Your task to perform on an android device: Open the calendar and show me this week's events? Image 0: 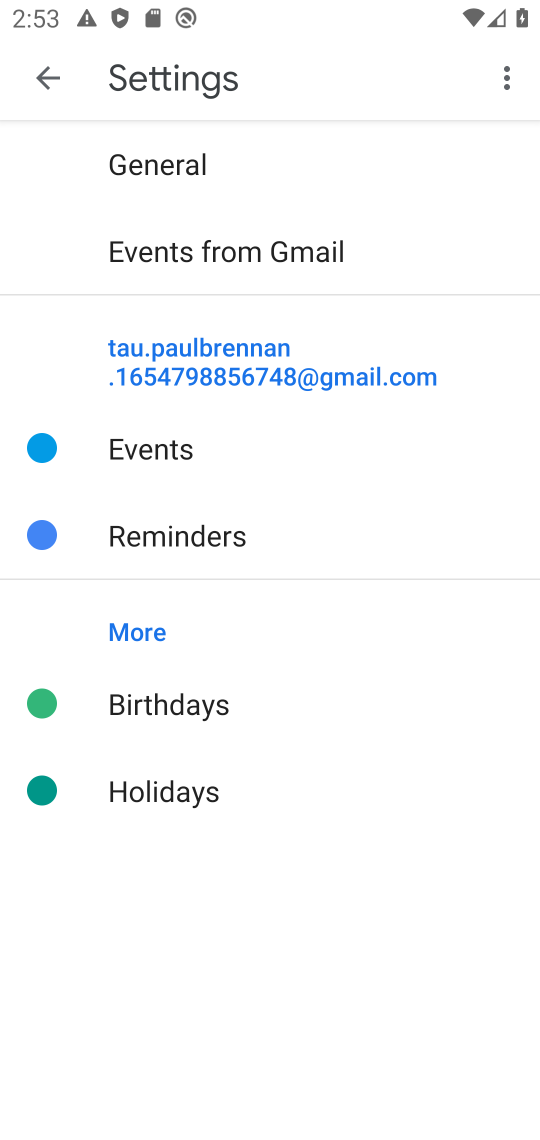
Step 0: press home button
Your task to perform on an android device: Open the calendar and show me this week's events? Image 1: 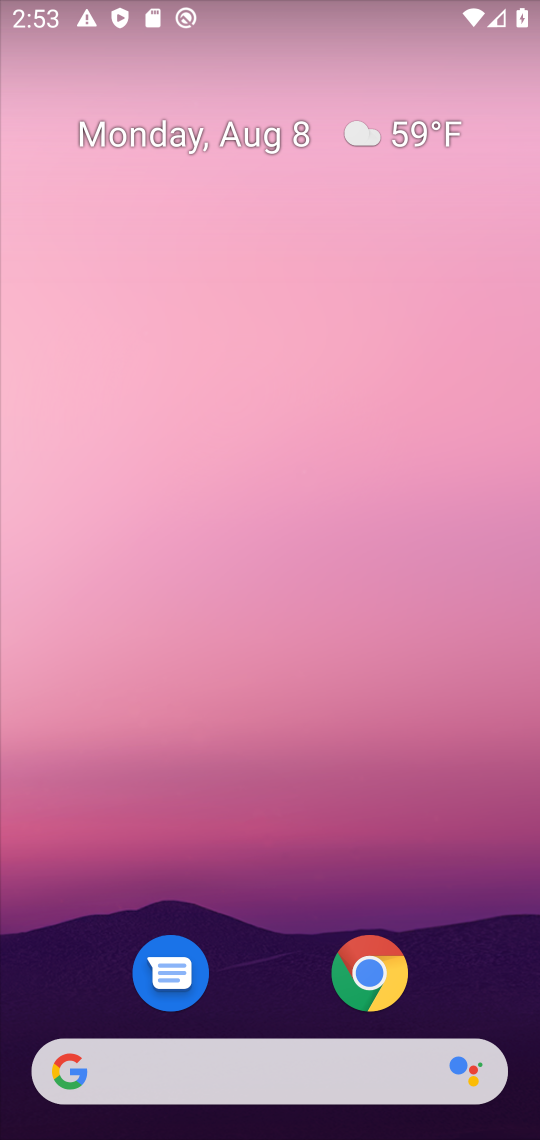
Step 1: drag from (470, 961) to (309, 244)
Your task to perform on an android device: Open the calendar and show me this week's events? Image 2: 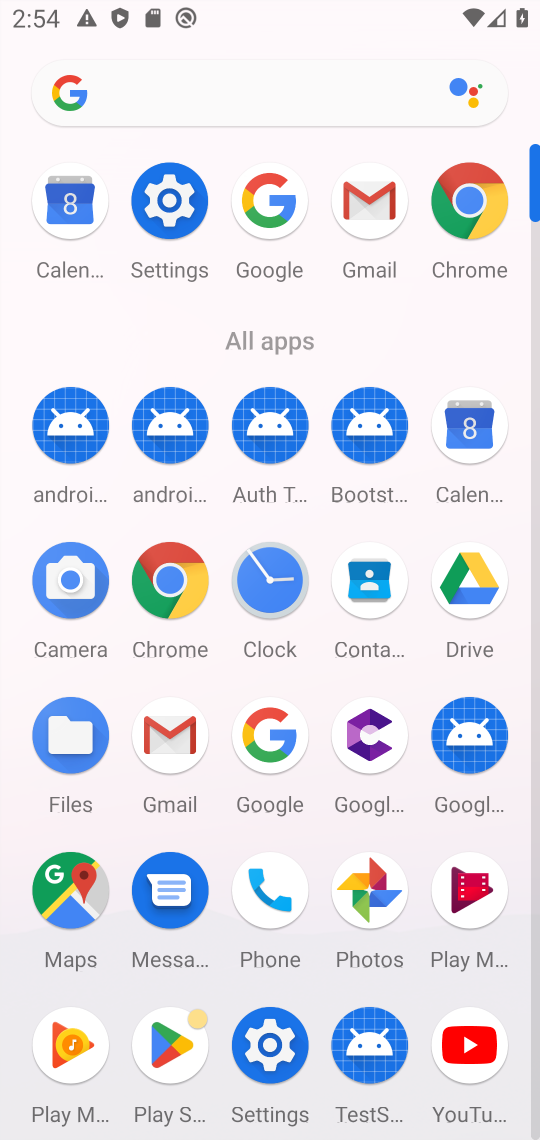
Step 2: click (463, 436)
Your task to perform on an android device: Open the calendar and show me this week's events? Image 3: 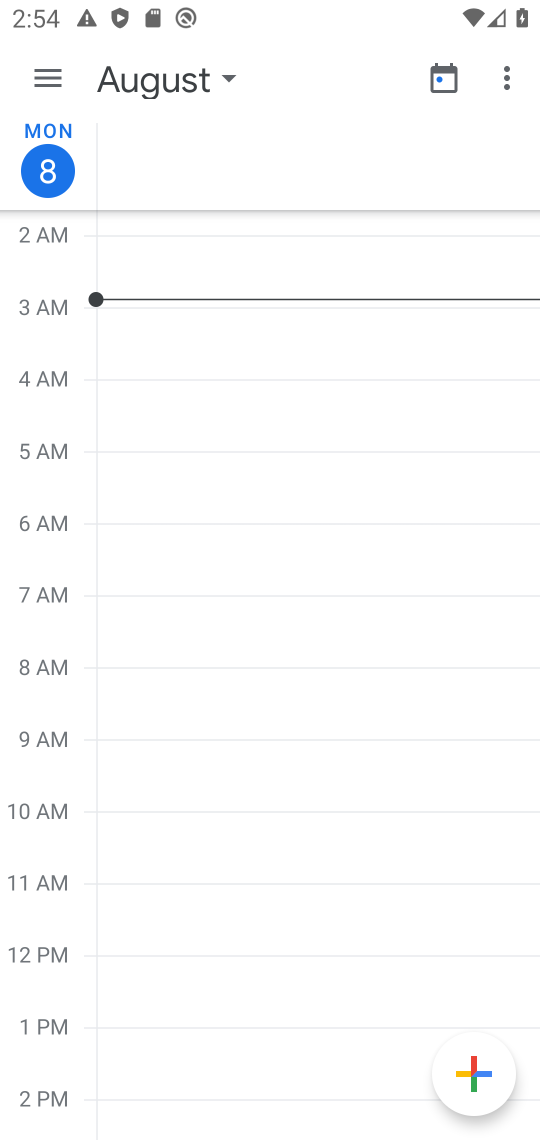
Step 3: click (180, 186)
Your task to perform on an android device: Open the calendar and show me this week's events? Image 4: 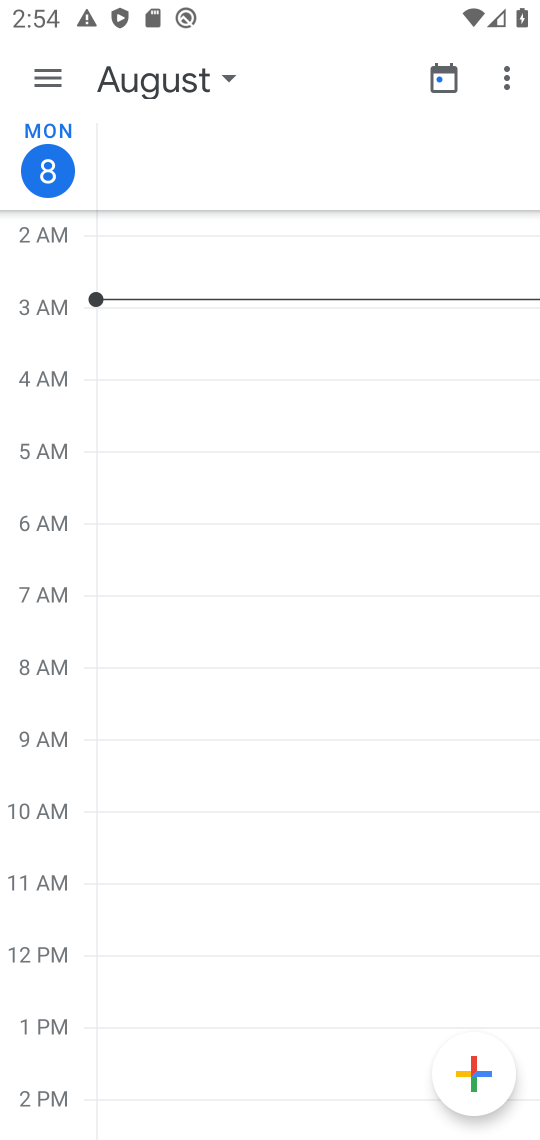
Step 4: click (35, 72)
Your task to perform on an android device: Open the calendar and show me this week's events? Image 5: 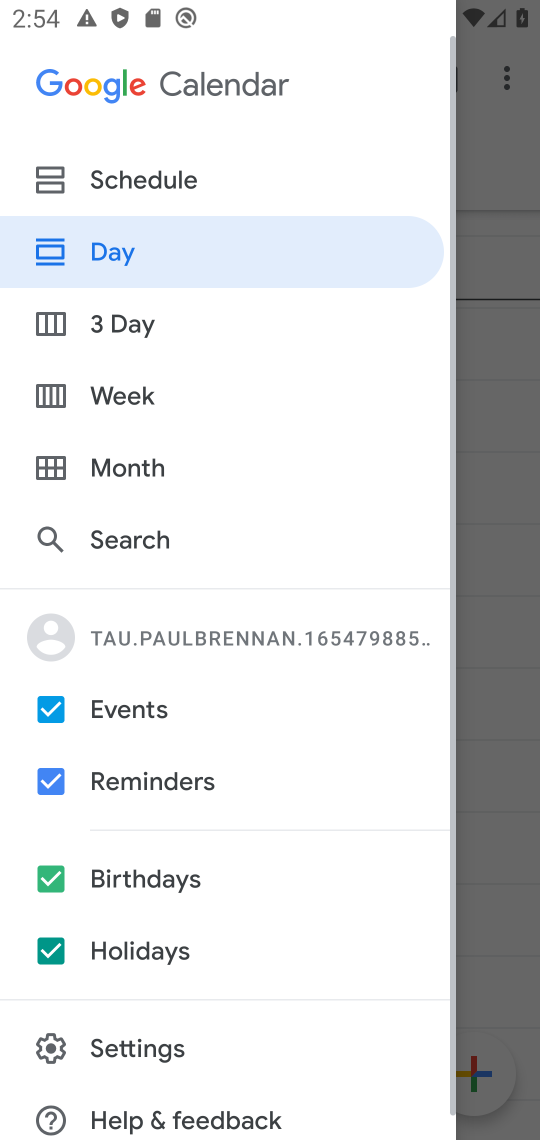
Step 5: click (59, 954)
Your task to perform on an android device: Open the calendar and show me this week's events? Image 6: 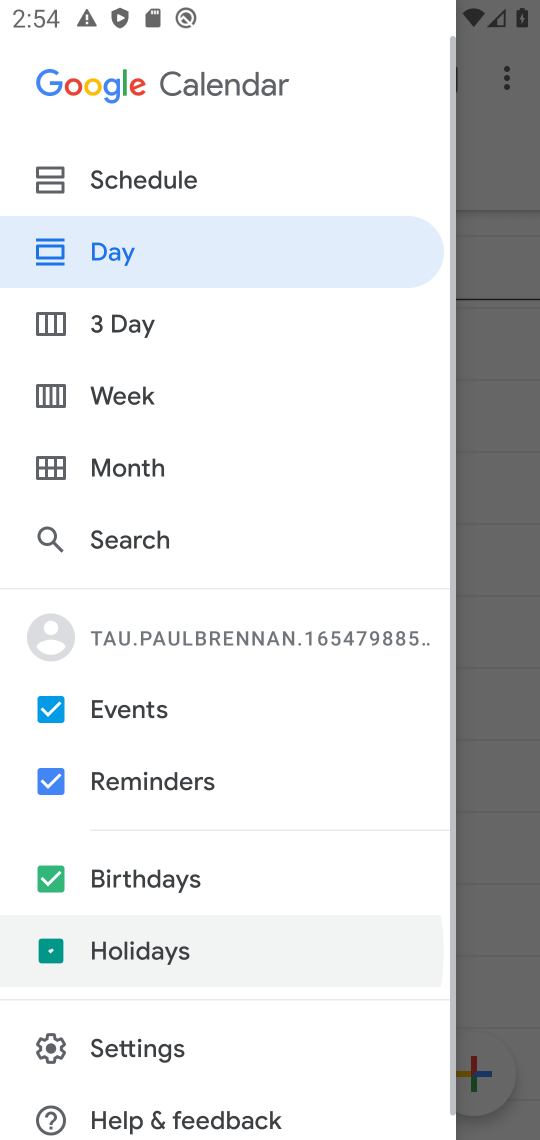
Step 6: click (49, 883)
Your task to perform on an android device: Open the calendar and show me this week's events? Image 7: 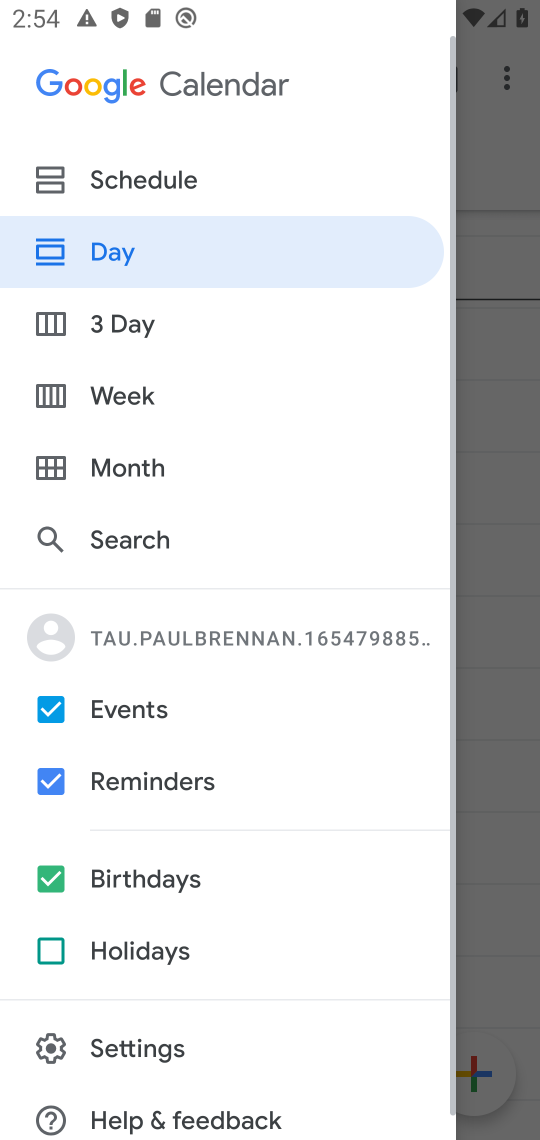
Step 7: click (52, 785)
Your task to perform on an android device: Open the calendar and show me this week's events? Image 8: 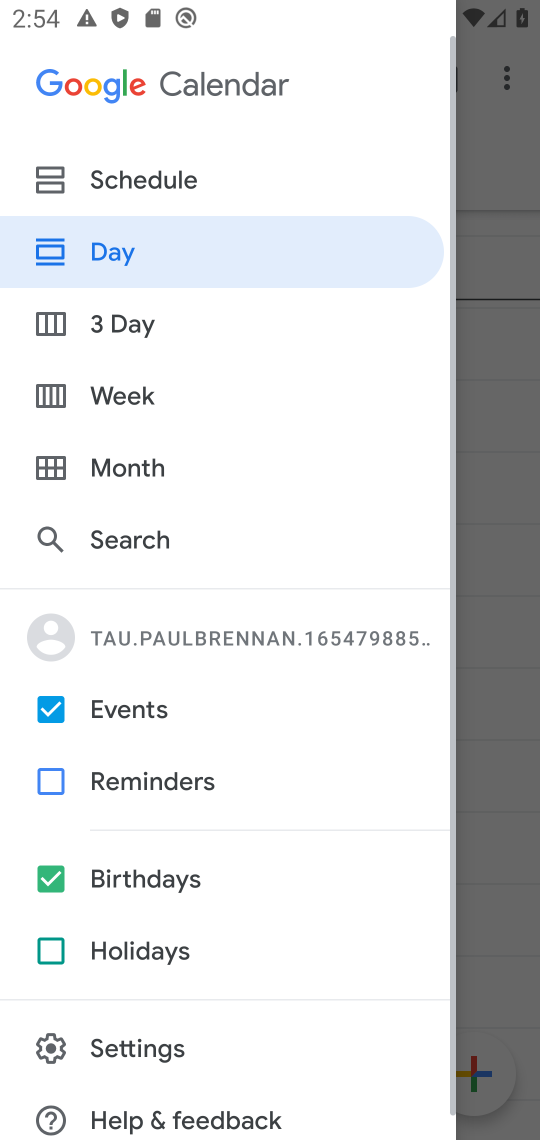
Step 8: click (53, 886)
Your task to perform on an android device: Open the calendar and show me this week's events? Image 9: 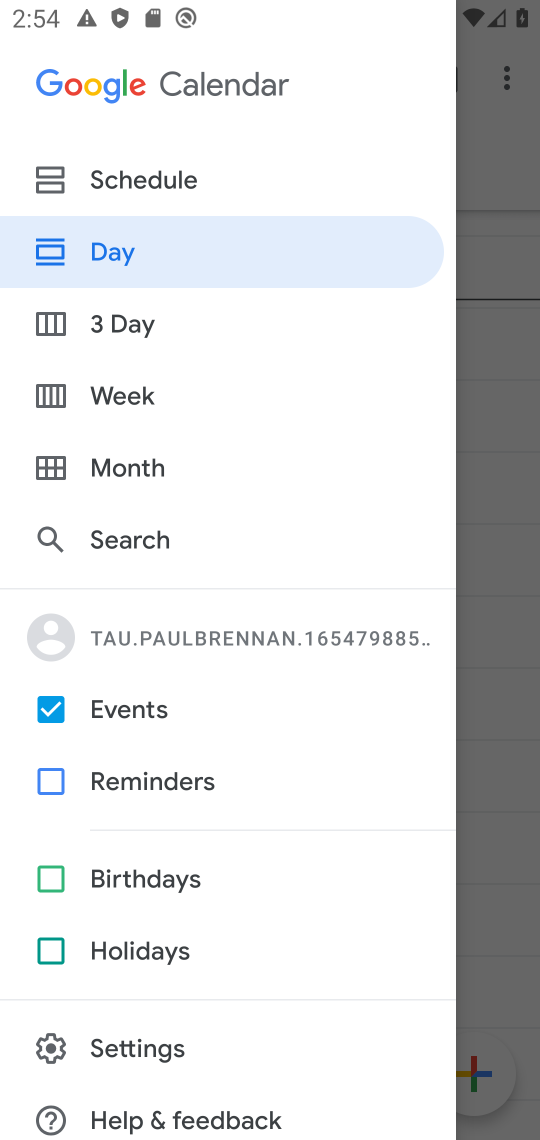
Step 9: click (98, 396)
Your task to perform on an android device: Open the calendar and show me this week's events? Image 10: 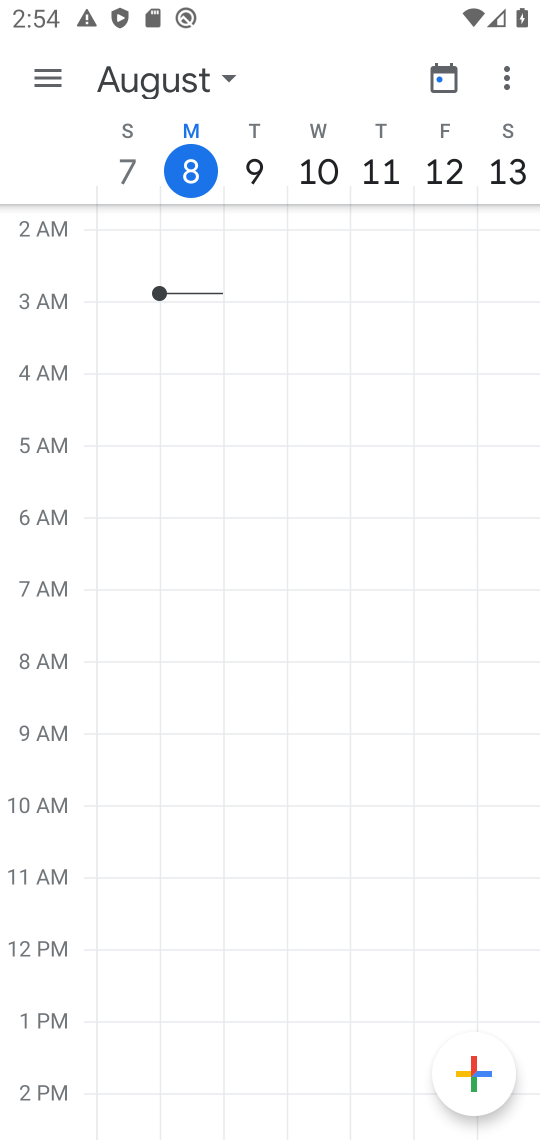
Step 10: task complete